Your task to perform on an android device: Play the last video I watched on Youtube Image 0: 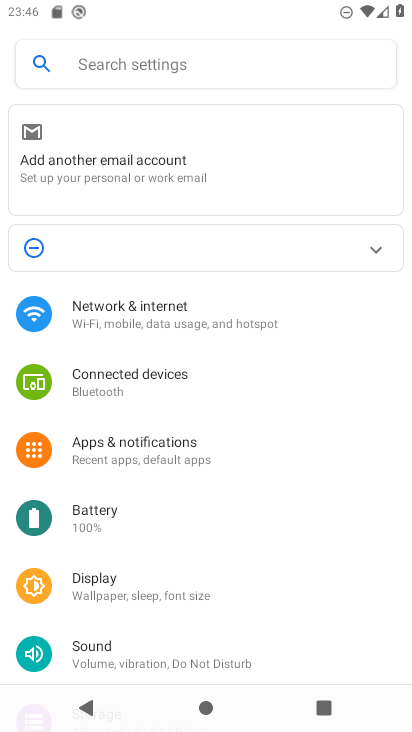
Step 0: press home button
Your task to perform on an android device: Play the last video I watched on Youtube Image 1: 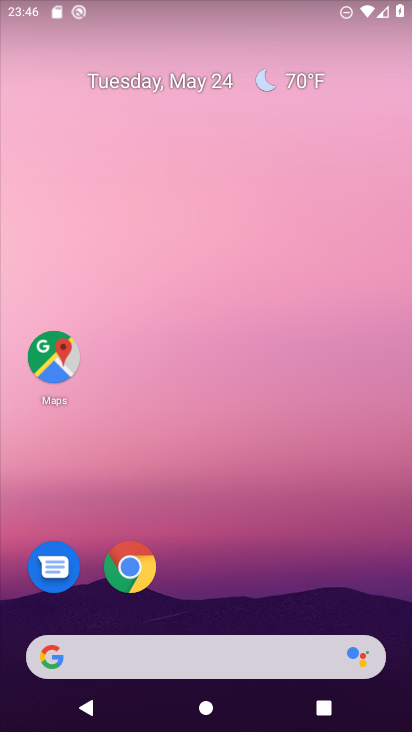
Step 1: drag from (326, 613) to (275, 63)
Your task to perform on an android device: Play the last video I watched on Youtube Image 2: 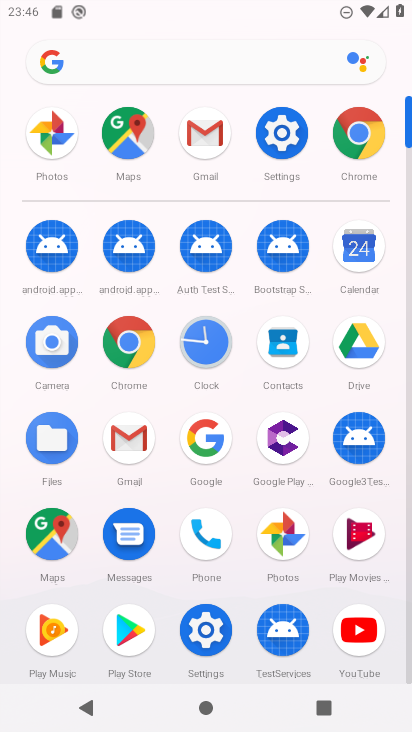
Step 2: click (361, 632)
Your task to perform on an android device: Play the last video I watched on Youtube Image 3: 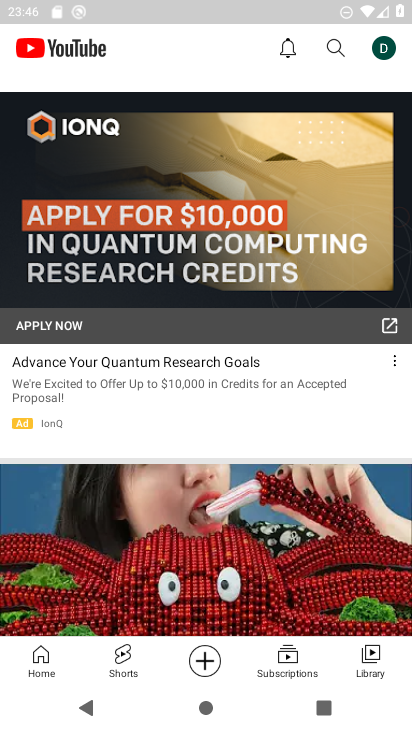
Step 3: click (365, 663)
Your task to perform on an android device: Play the last video I watched on Youtube Image 4: 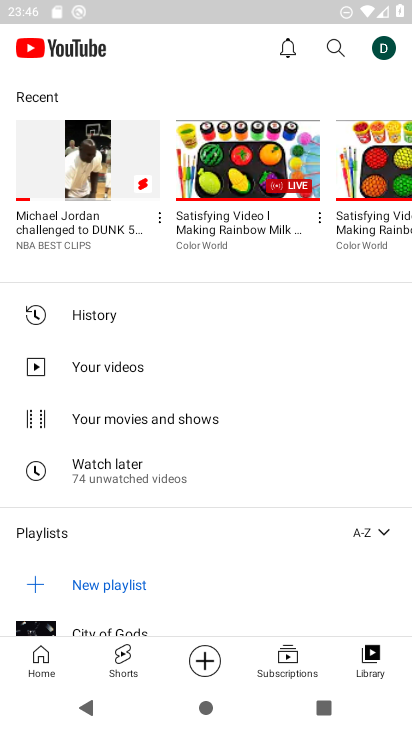
Step 4: click (67, 143)
Your task to perform on an android device: Play the last video I watched on Youtube Image 5: 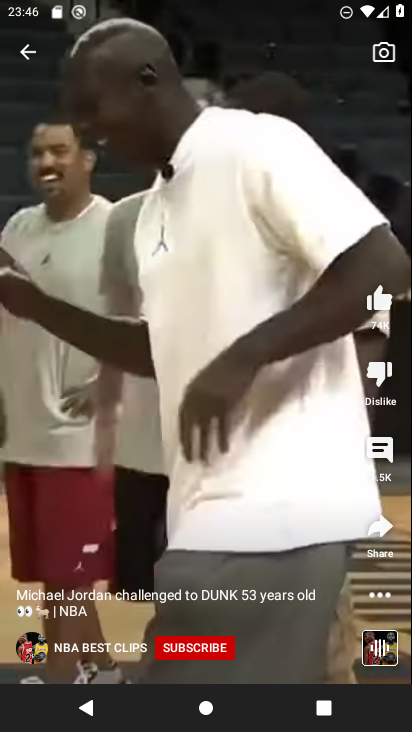
Step 5: click (210, 326)
Your task to perform on an android device: Play the last video I watched on Youtube Image 6: 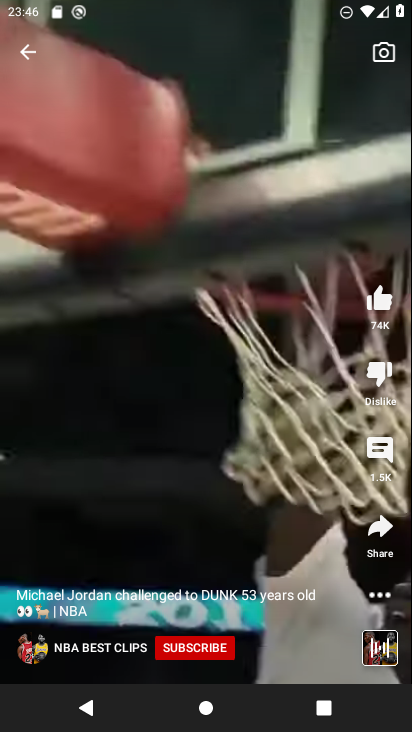
Step 6: click (208, 317)
Your task to perform on an android device: Play the last video I watched on Youtube Image 7: 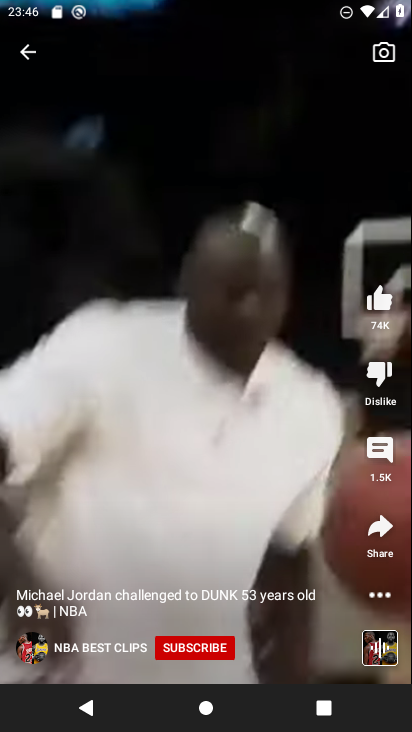
Step 7: task complete